Your task to perform on an android device: Go to sound settings Image 0: 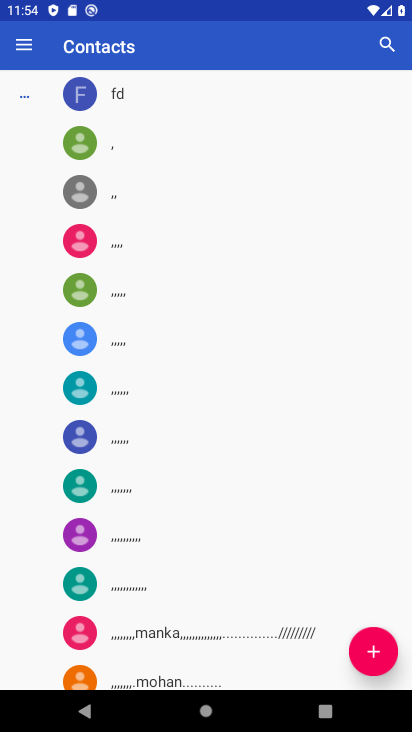
Step 0: press back button
Your task to perform on an android device: Go to sound settings Image 1: 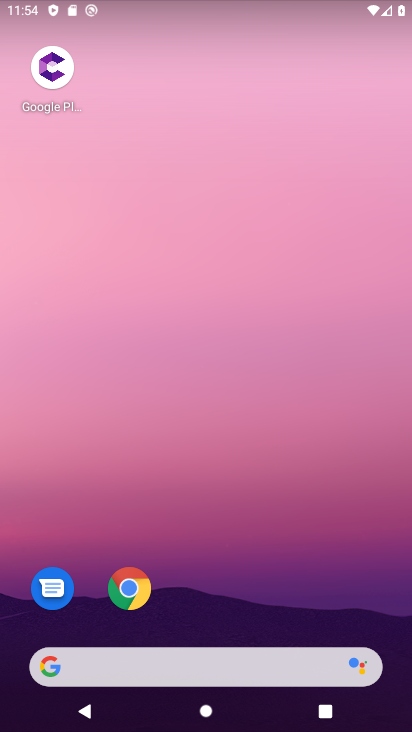
Step 1: drag from (261, 612) to (201, 133)
Your task to perform on an android device: Go to sound settings Image 2: 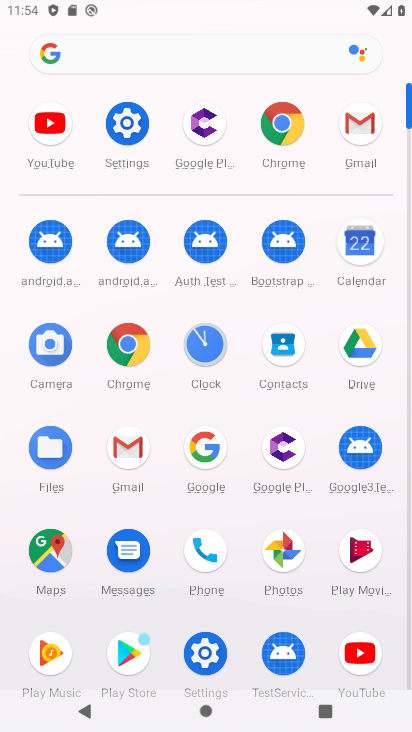
Step 2: click (121, 119)
Your task to perform on an android device: Go to sound settings Image 3: 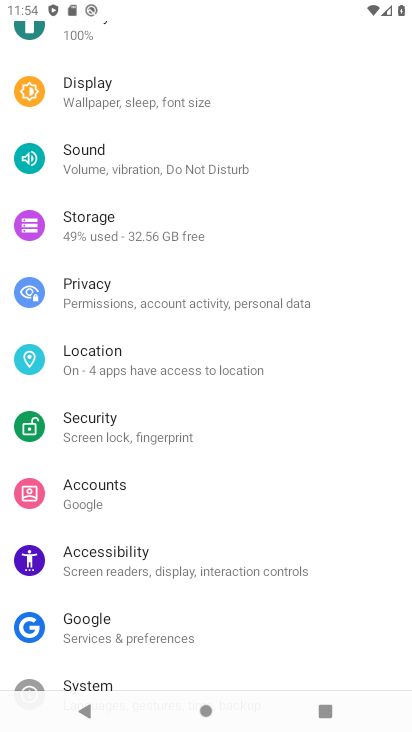
Step 3: click (88, 168)
Your task to perform on an android device: Go to sound settings Image 4: 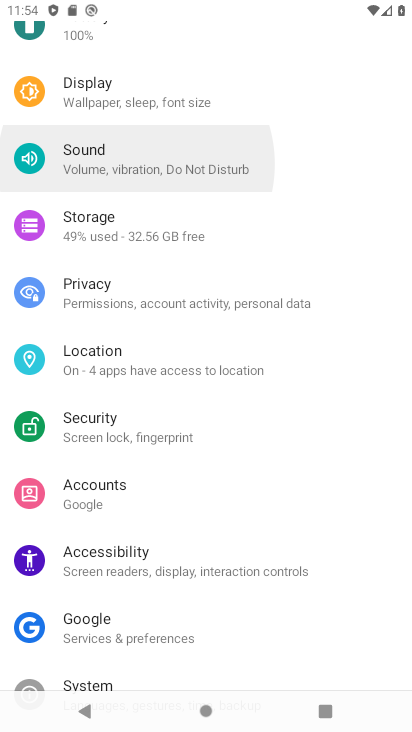
Step 4: click (88, 168)
Your task to perform on an android device: Go to sound settings Image 5: 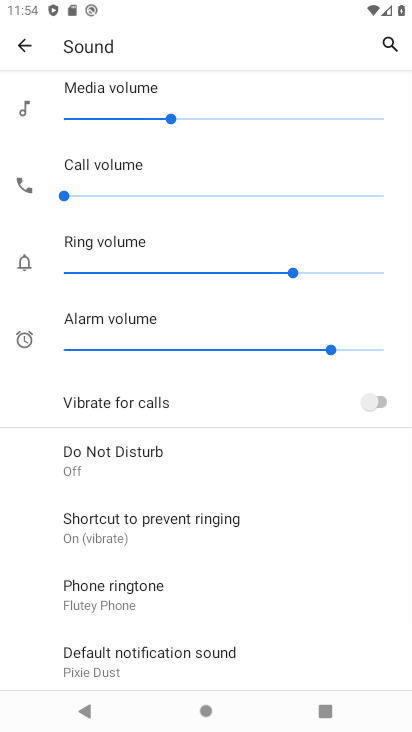
Step 5: task complete